Your task to perform on an android device: Go to privacy settings Image 0: 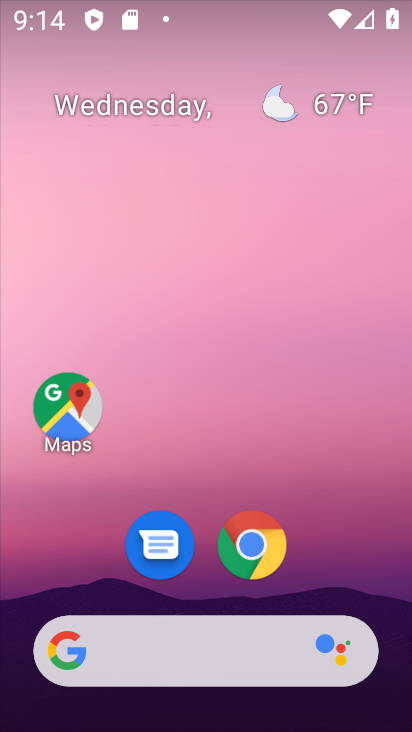
Step 0: drag from (336, 591) to (271, 90)
Your task to perform on an android device: Go to privacy settings Image 1: 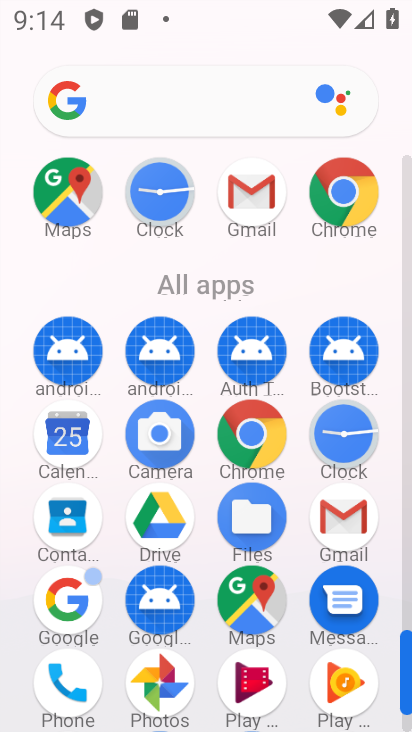
Step 1: drag from (389, 614) to (393, 388)
Your task to perform on an android device: Go to privacy settings Image 2: 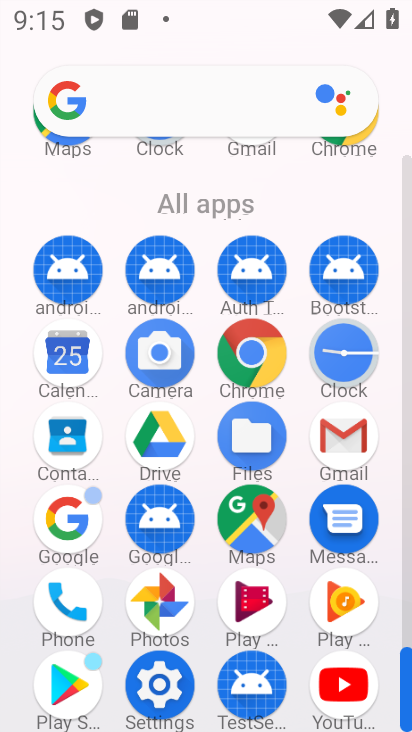
Step 2: click (174, 702)
Your task to perform on an android device: Go to privacy settings Image 3: 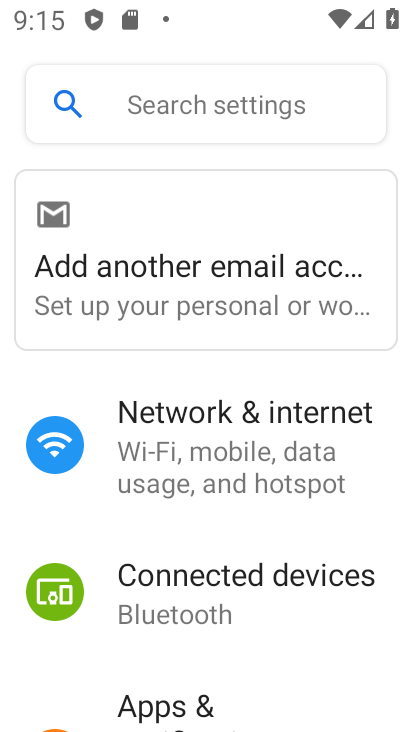
Step 3: drag from (245, 631) to (238, 349)
Your task to perform on an android device: Go to privacy settings Image 4: 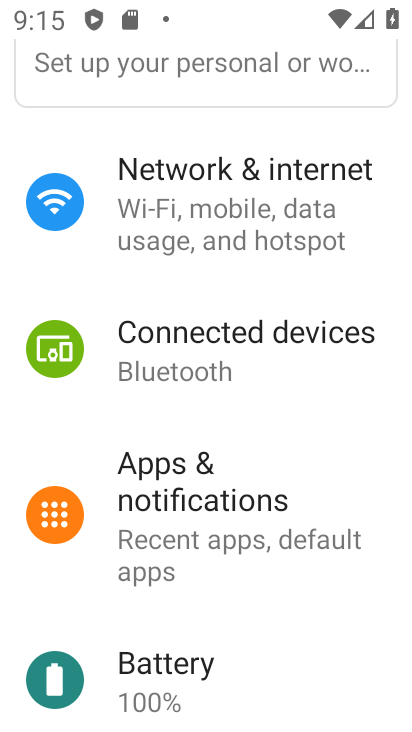
Step 4: drag from (255, 584) to (240, 192)
Your task to perform on an android device: Go to privacy settings Image 5: 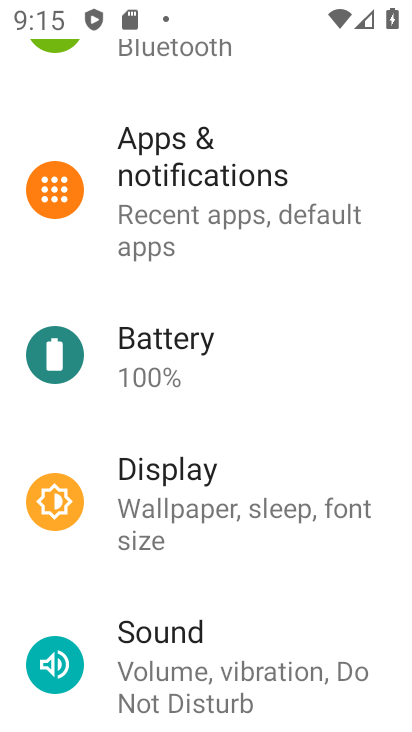
Step 5: drag from (269, 650) to (246, 284)
Your task to perform on an android device: Go to privacy settings Image 6: 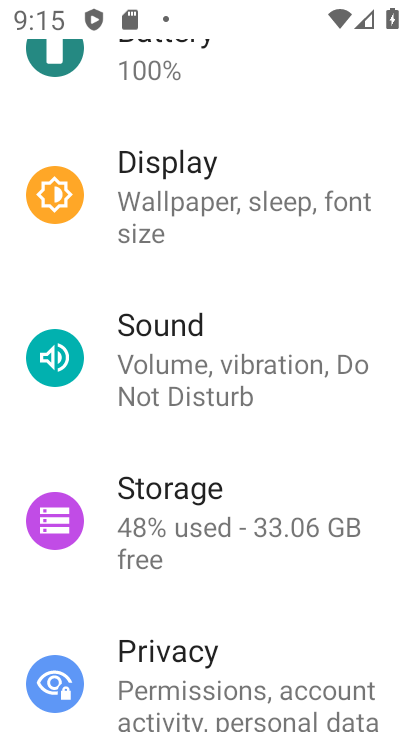
Step 6: click (246, 663)
Your task to perform on an android device: Go to privacy settings Image 7: 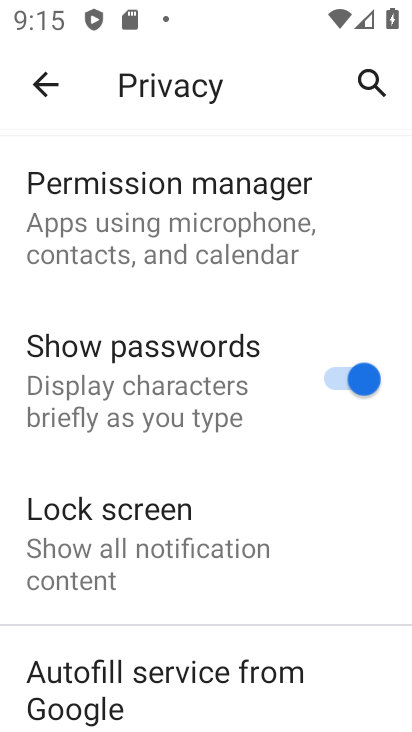
Step 7: task complete